Your task to perform on an android device: When is my next meeting? Image 0: 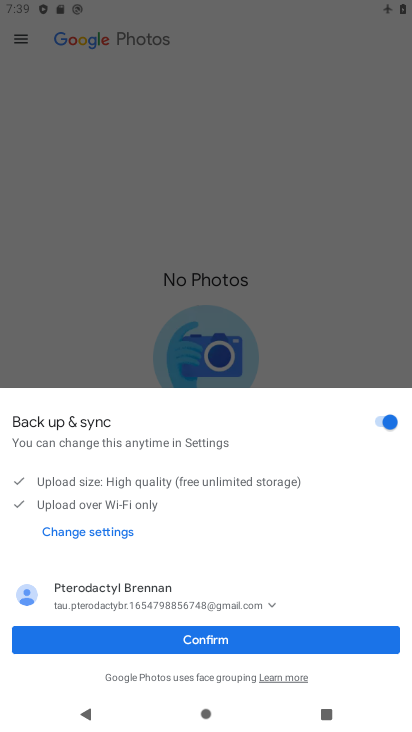
Step 0: press home button
Your task to perform on an android device: When is my next meeting? Image 1: 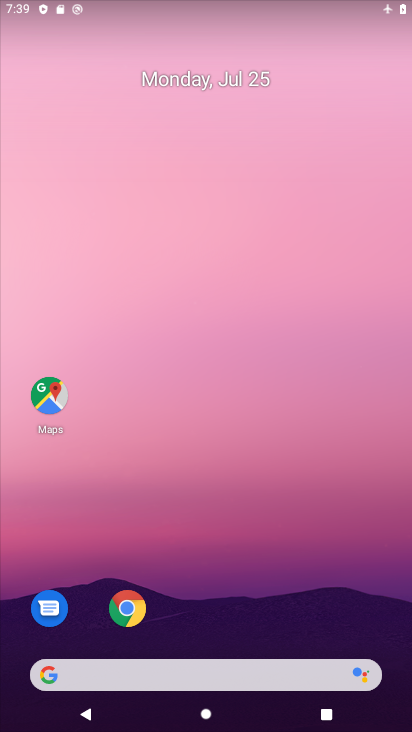
Step 1: drag from (315, 617) to (390, 0)
Your task to perform on an android device: When is my next meeting? Image 2: 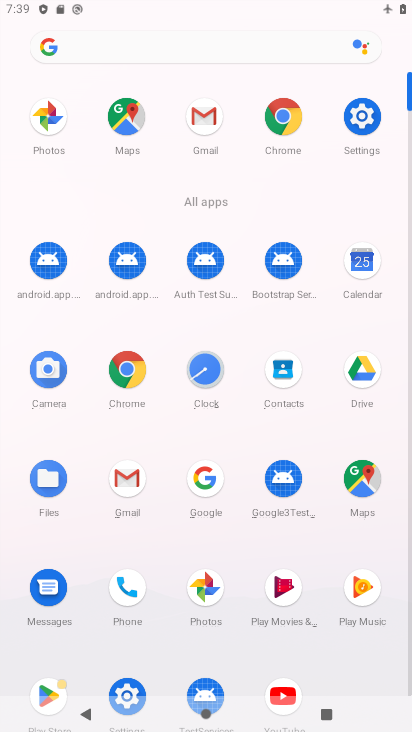
Step 2: click (363, 261)
Your task to perform on an android device: When is my next meeting? Image 3: 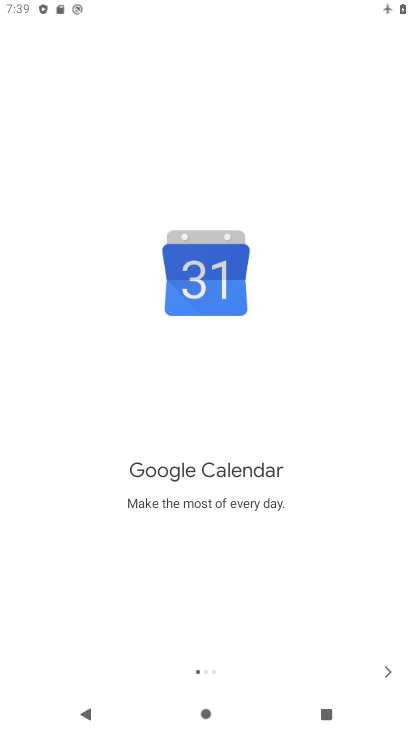
Step 3: click (389, 669)
Your task to perform on an android device: When is my next meeting? Image 4: 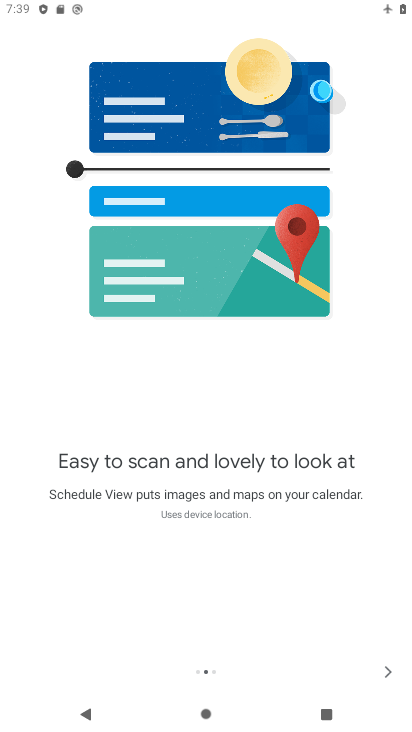
Step 4: click (389, 669)
Your task to perform on an android device: When is my next meeting? Image 5: 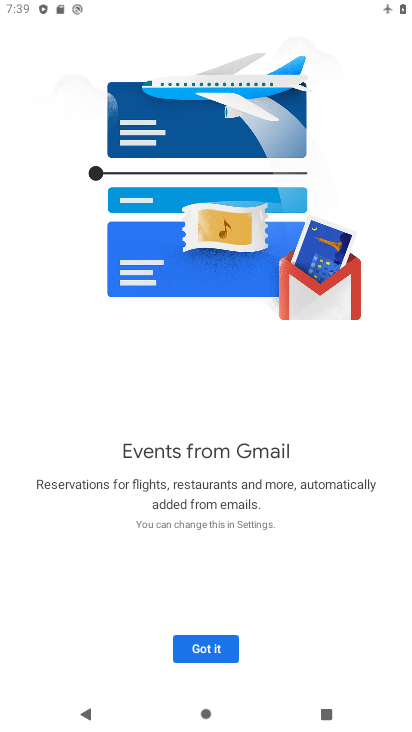
Step 5: click (203, 655)
Your task to perform on an android device: When is my next meeting? Image 6: 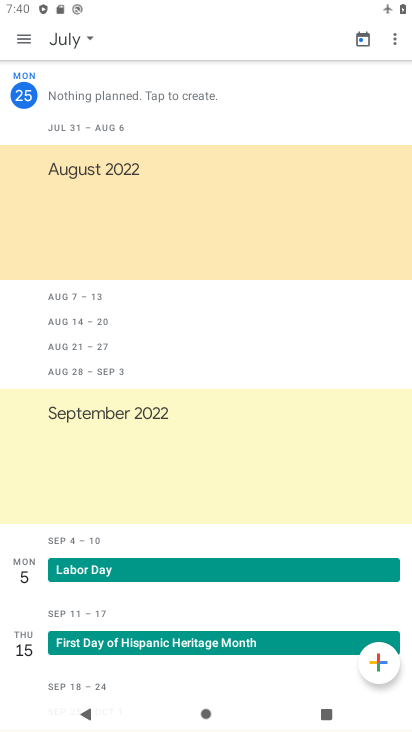
Step 6: click (76, 41)
Your task to perform on an android device: When is my next meeting? Image 7: 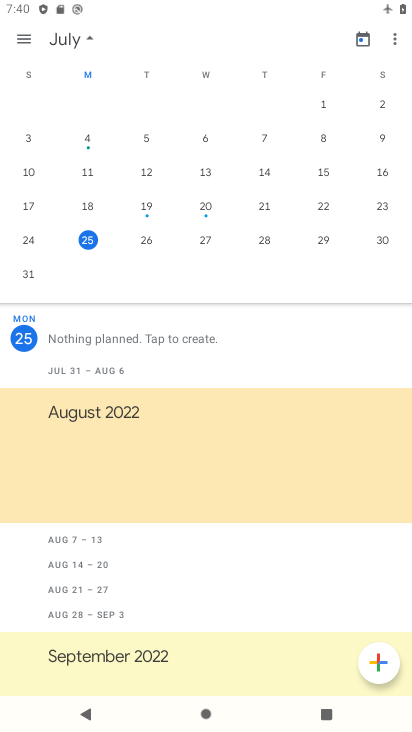
Step 7: click (28, 42)
Your task to perform on an android device: When is my next meeting? Image 8: 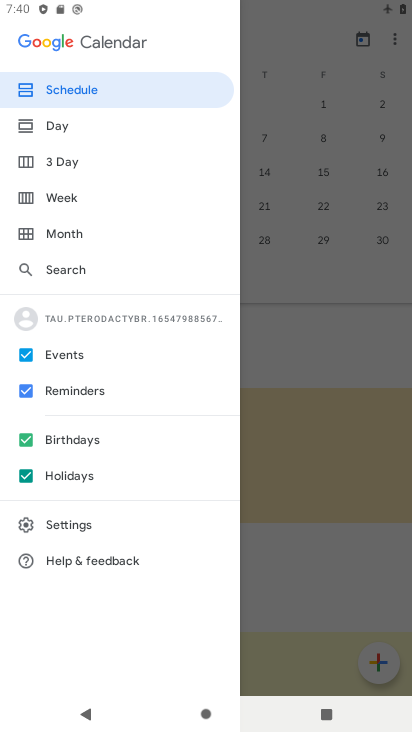
Step 8: click (50, 194)
Your task to perform on an android device: When is my next meeting? Image 9: 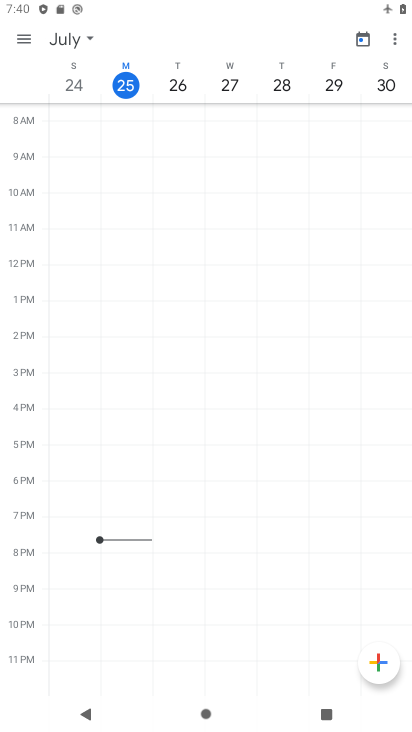
Step 9: task complete